Your task to perform on an android device: Search for seafood restaurants on Google Maps Image 0: 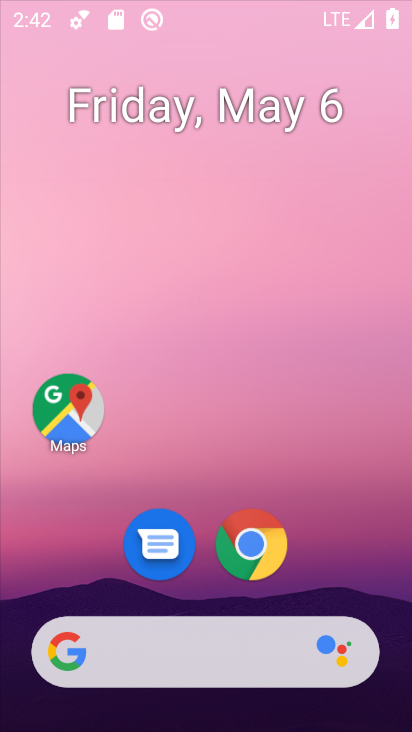
Step 0: click (371, 225)
Your task to perform on an android device: Search for seafood restaurants on Google Maps Image 1: 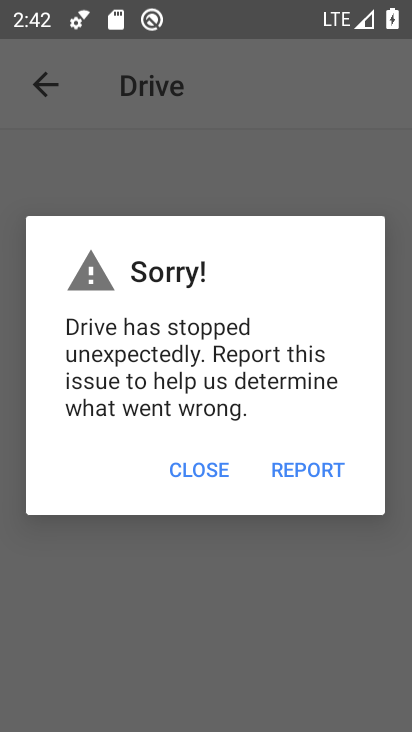
Step 1: press home button
Your task to perform on an android device: Search for seafood restaurants on Google Maps Image 2: 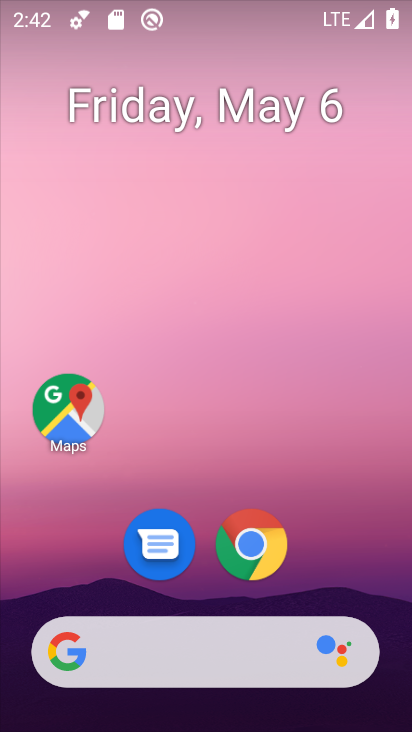
Step 2: click (70, 411)
Your task to perform on an android device: Search for seafood restaurants on Google Maps Image 3: 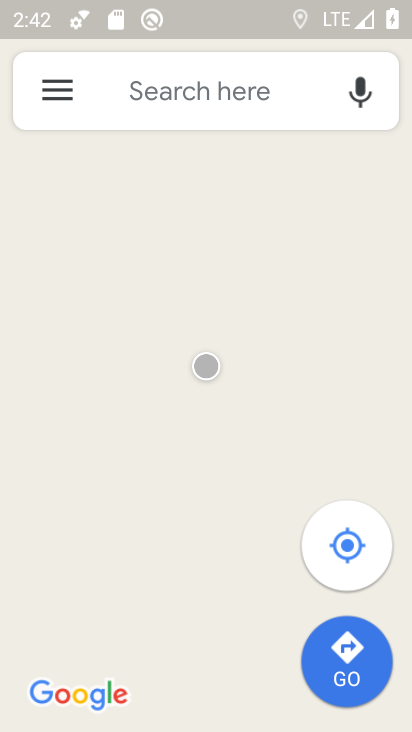
Step 3: click (148, 102)
Your task to perform on an android device: Search for seafood restaurants on Google Maps Image 4: 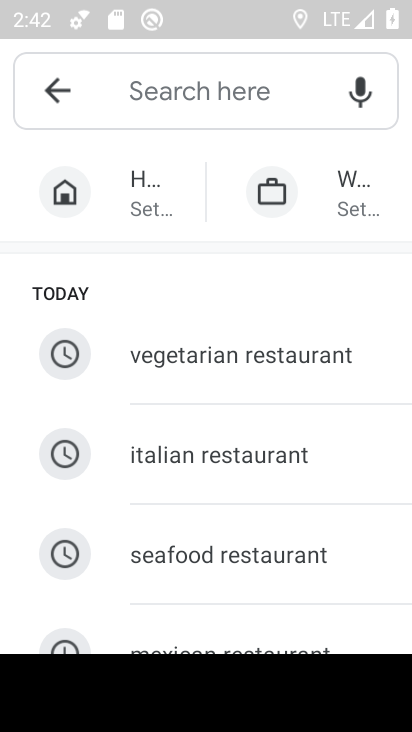
Step 4: type "seafood restaurants"
Your task to perform on an android device: Search for seafood restaurants on Google Maps Image 5: 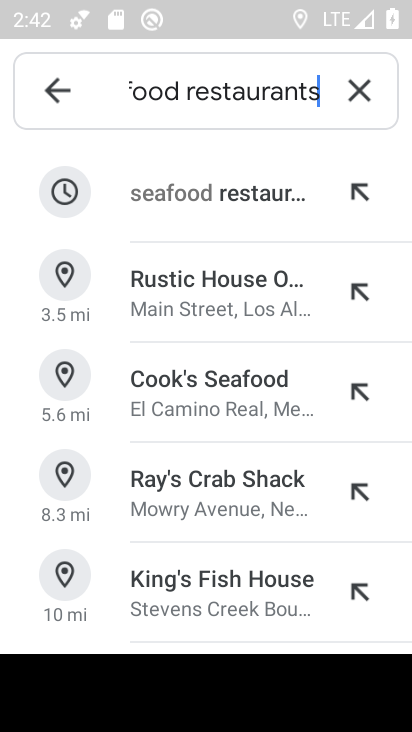
Step 5: click (171, 191)
Your task to perform on an android device: Search for seafood restaurants on Google Maps Image 6: 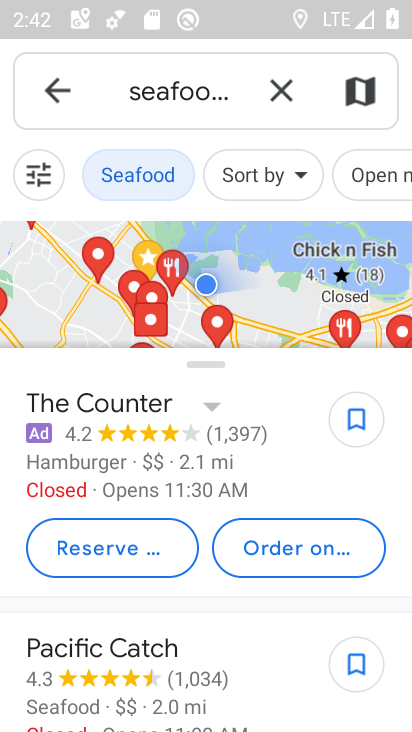
Step 6: task complete